Your task to perform on an android device: Search for vegetarian restaurants on Maps Image 0: 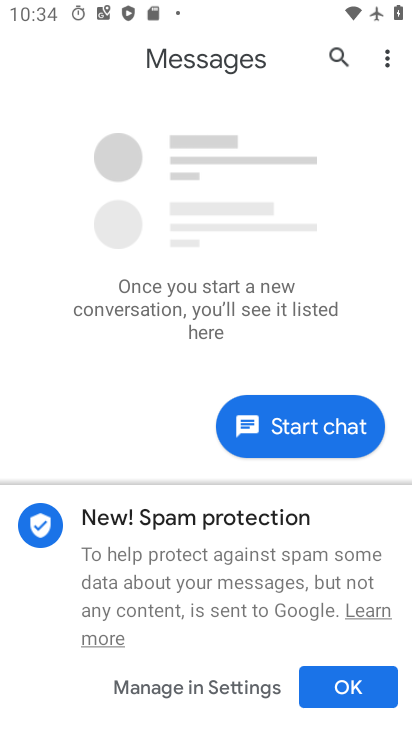
Step 0: press back button
Your task to perform on an android device: Search for vegetarian restaurants on Maps Image 1: 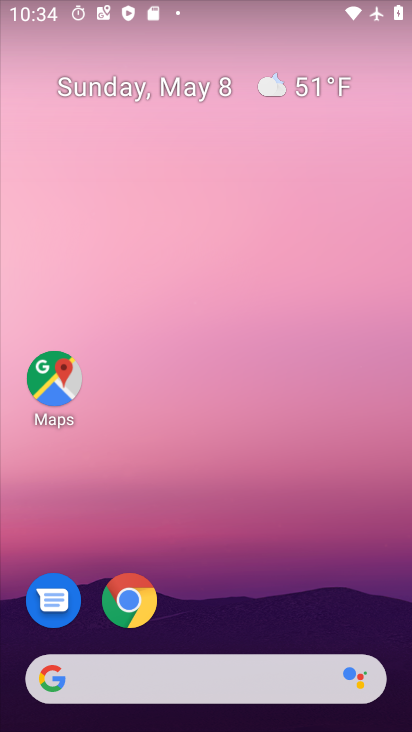
Step 1: drag from (254, 577) to (206, 16)
Your task to perform on an android device: Search for vegetarian restaurants on Maps Image 2: 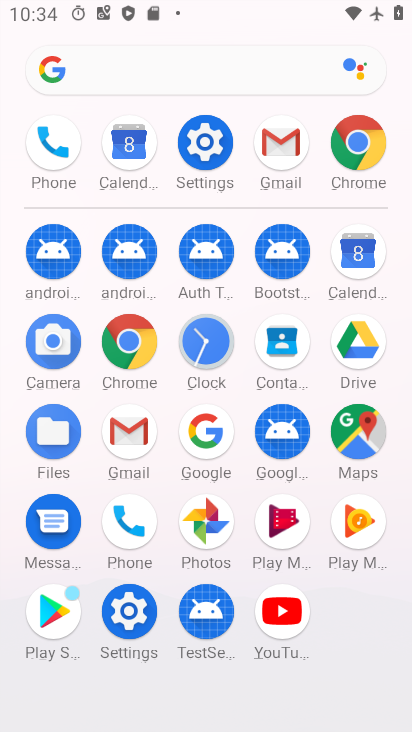
Step 2: click (358, 426)
Your task to perform on an android device: Search for vegetarian restaurants on Maps Image 3: 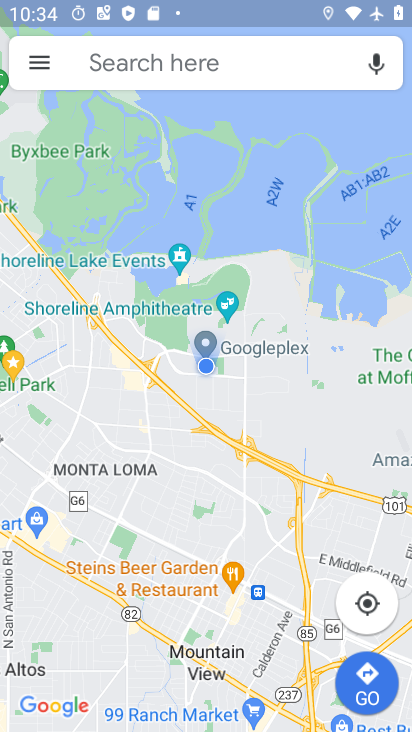
Step 3: click (241, 55)
Your task to perform on an android device: Search for vegetarian restaurants on Maps Image 4: 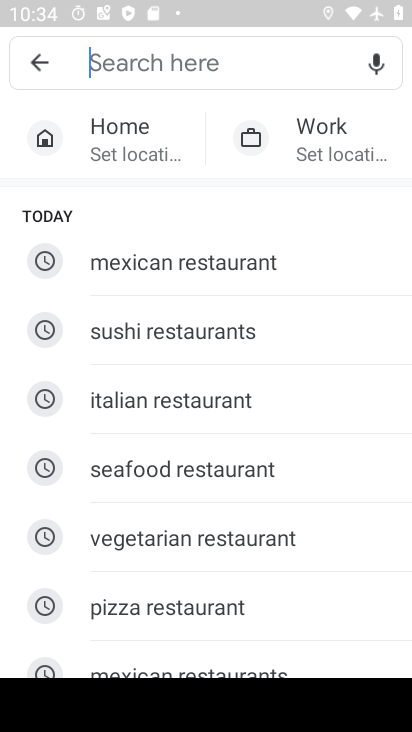
Step 4: click (202, 539)
Your task to perform on an android device: Search for vegetarian restaurants on Maps Image 5: 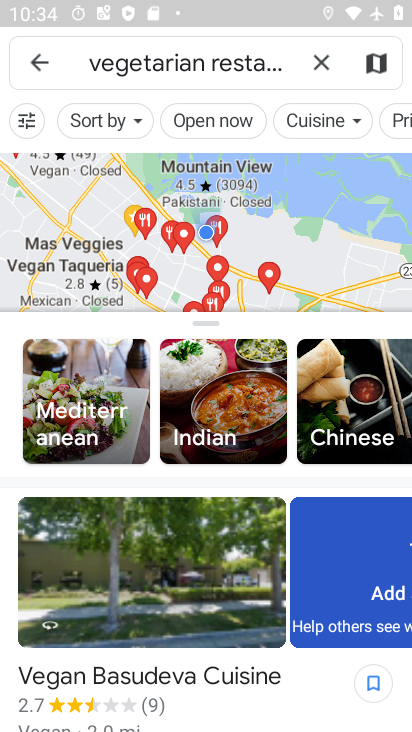
Step 5: task complete